Your task to perform on an android device: Open Maps and search for coffee Image 0: 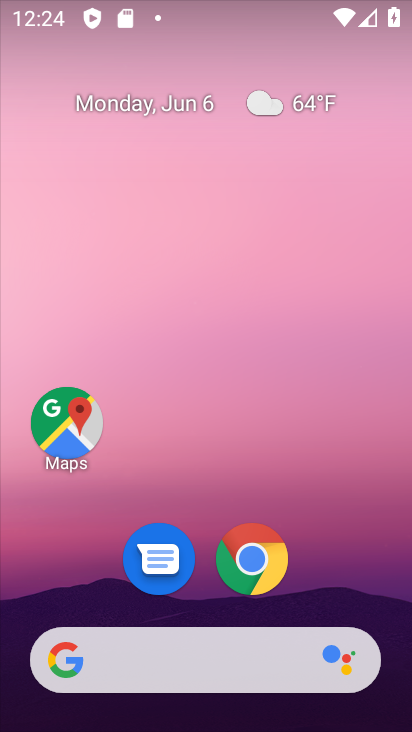
Step 0: click (265, 141)
Your task to perform on an android device: Open Maps and search for coffee Image 1: 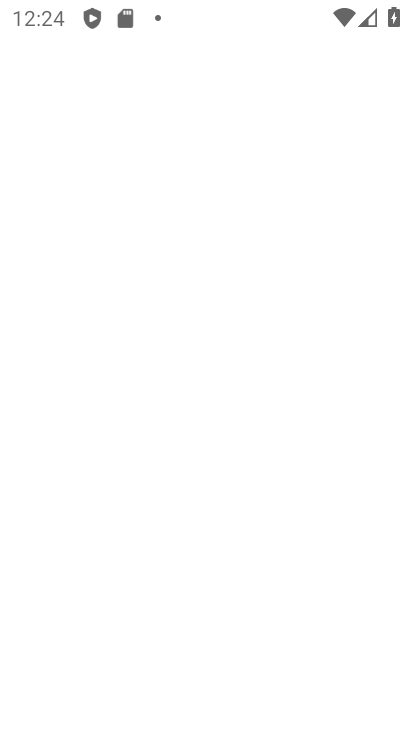
Step 1: drag from (144, 700) to (220, 165)
Your task to perform on an android device: Open Maps and search for coffee Image 2: 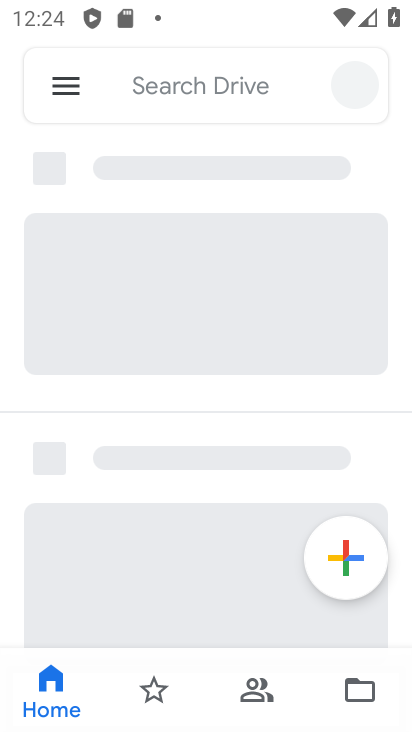
Step 2: press home button
Your task to perform on an android device: Open Maps and search for coffee Image 3: 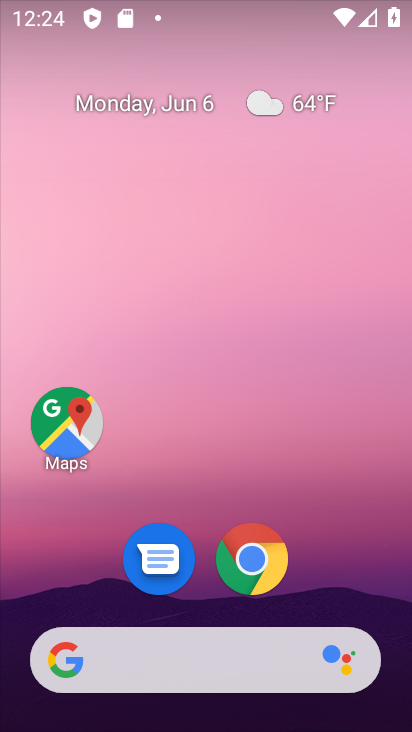
Step 3: drag from (271, 705) to (344, 158)
Your task to perform on an android device: Open Maps and search for coffee Image 4: 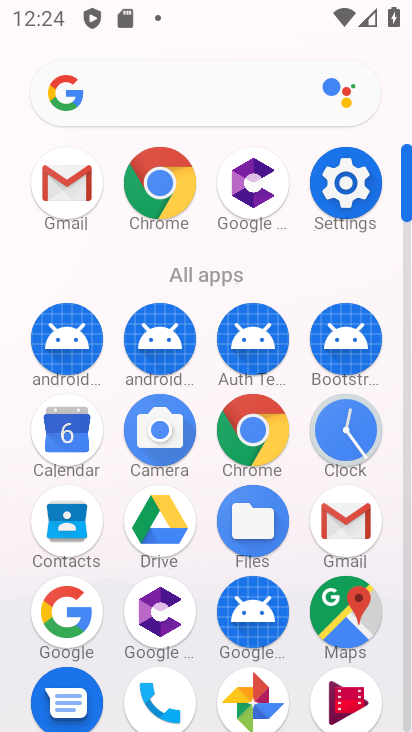
Step 4: click (364, 617)
Your task to perform on an android device: Open Maps and search for coffee Image 5: 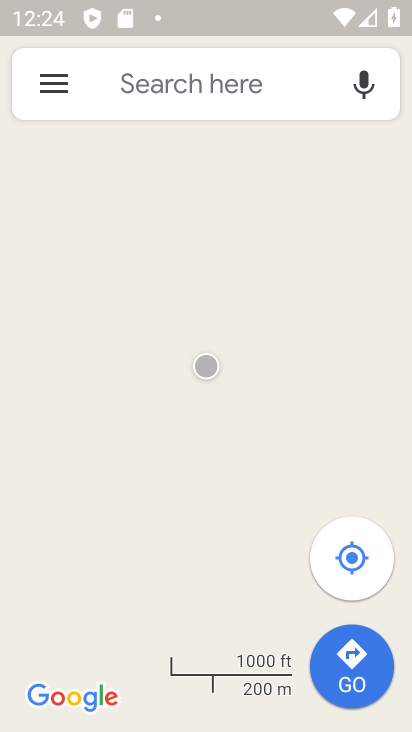
Step 5: click (160, 91)
Your task to perform on an android device: Open Maps and search for coffee Image 6: 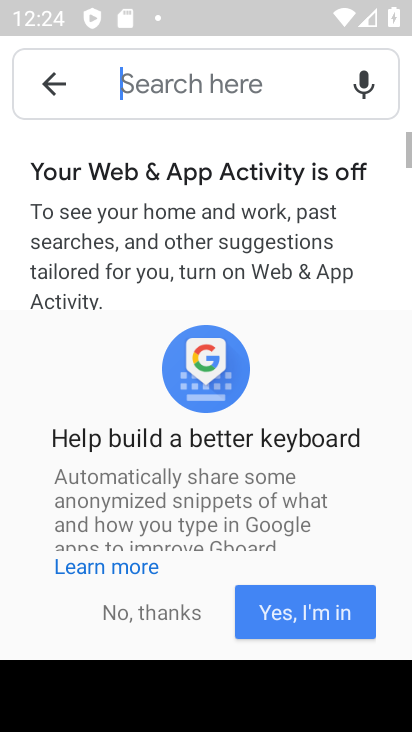
Step 6: click (129, 609)
Your task to perform on an android device: Open Maps and search for coffee Image 7: 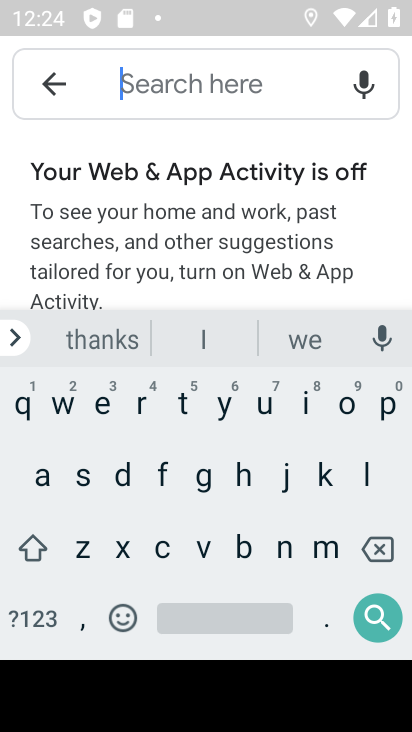
Step 7: click (168, 547)
Your task to perform on an android device: Open Maps and search for coffee Image 8: 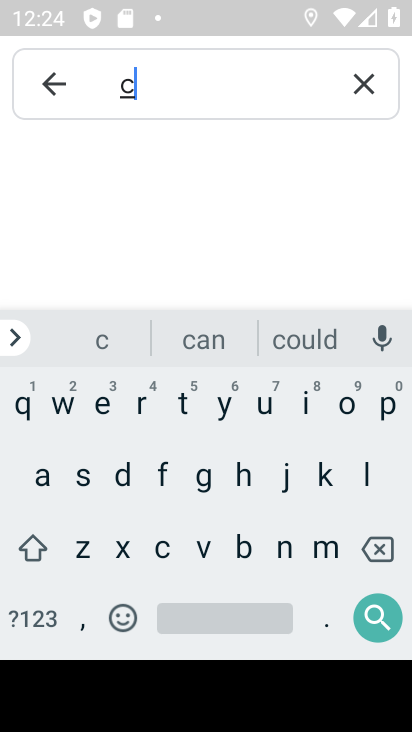
Step 8: click (354, 400)
Your task to perform on an android device: Open Maps and search for coffee Image 9: 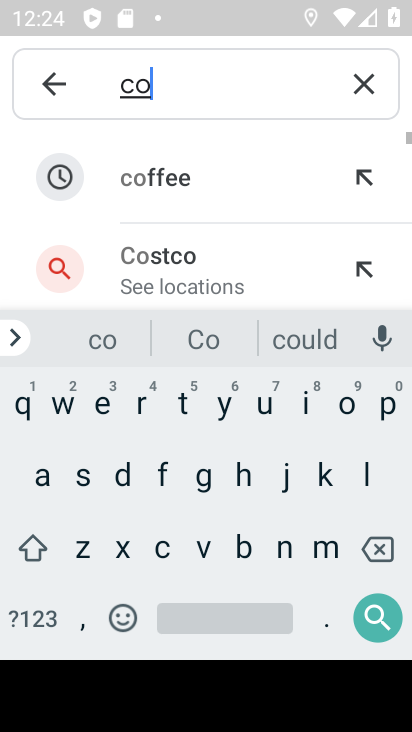
Step 9: click (165, 186)
Your task to perform on an android device: Open Maps and search for coffee Image 10: 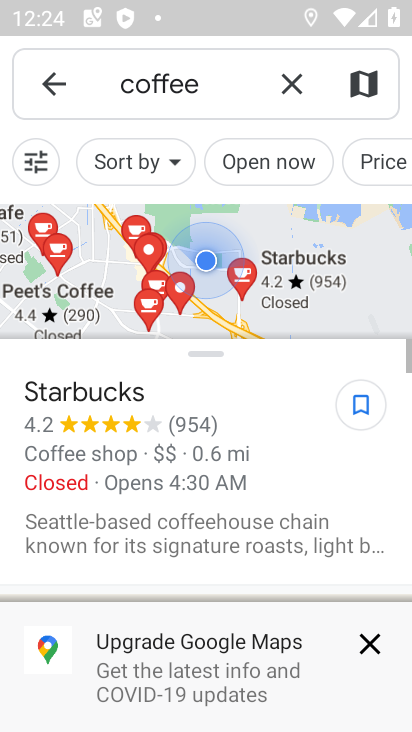
Step 10: click (143, 276)
Your task to perform on an android device: Open Maps and search for coffee Image 11: 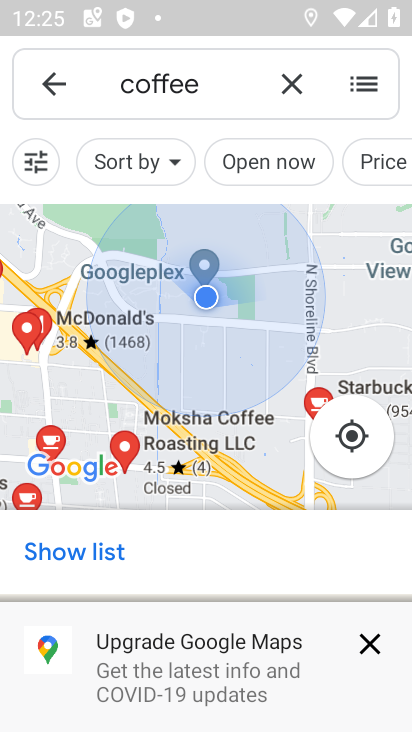
Step 11: task complete